Your task to perform on an android device: turn pop-ups off in chrome Image 0: 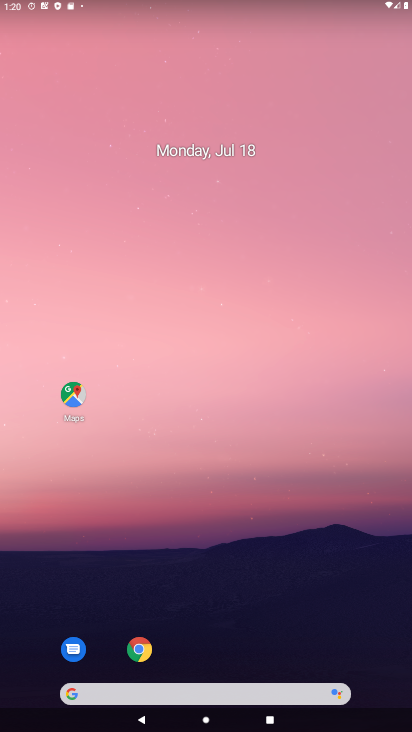
Step 0: drag from (185, 674) to (140, 46)
Your task to perform on an android device: turn pop-ups off in chrome Image 1: 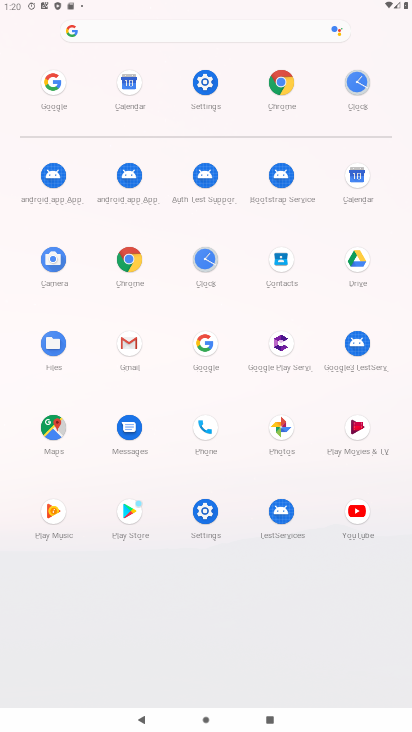
Step 1: click (124, 260)
Your task to perform on an android device: turn pop-ups off in chrome Image 2: 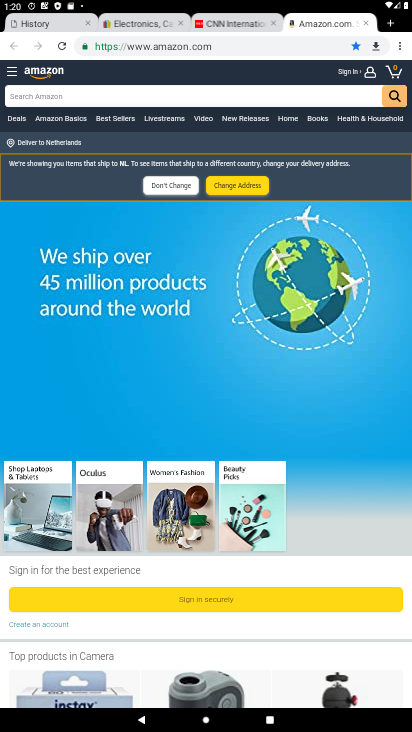
Step 2: click (400, 44)
Your task to perform on an android device: turn pop-ups off in chrome Image 3: 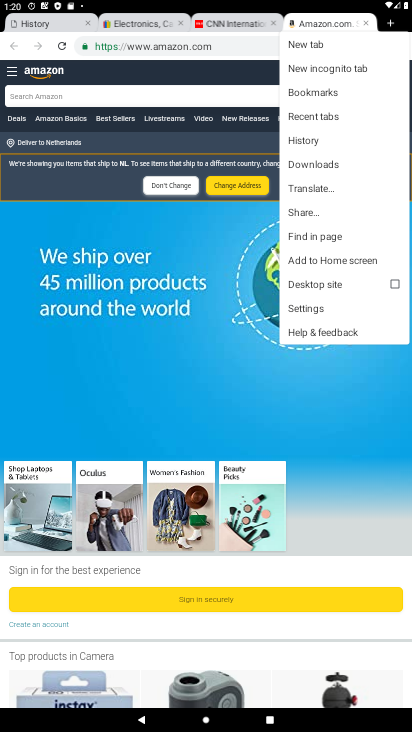
Step 3: click (303, 299)
Your task to perform on an android device: turn pop-ups off in chrome Image 4: 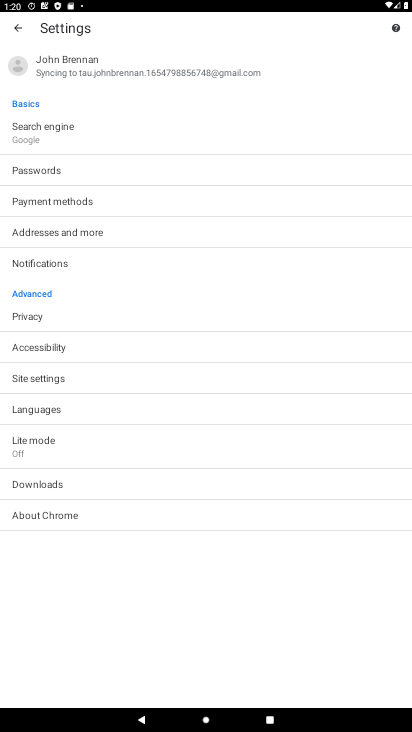
Step 4: click (35, 382)
Your task to perform on an android device: turn pop-ups off in chrome Image 5: 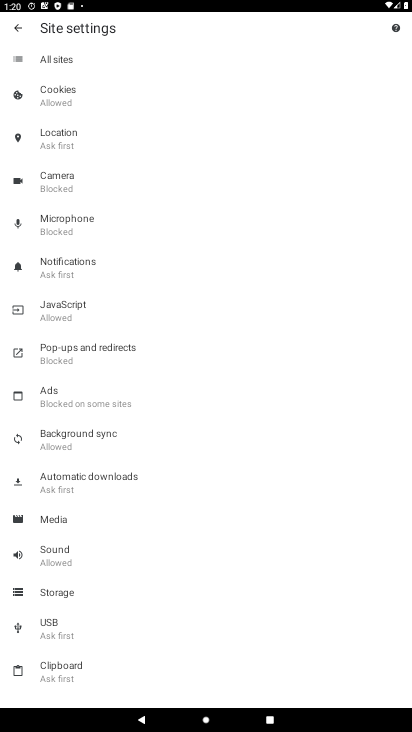
Step 5: click (86, 341)
Your task to perform on an android device: turn pop-ups off in chrome Image 6: 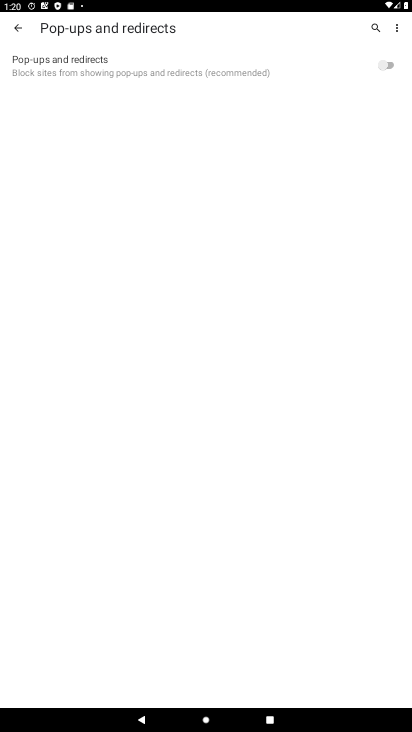
Step 6: task complete